Your task to perform on an android device: open app "Spotify" (install if not already installed) Image 0: 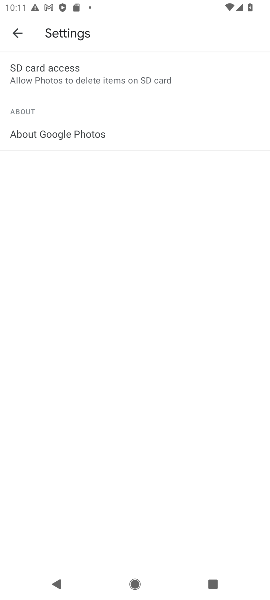
Step 0: press home button
Your task to perform on an android device: open app "Spotify" (install if not already installed) Image 1: 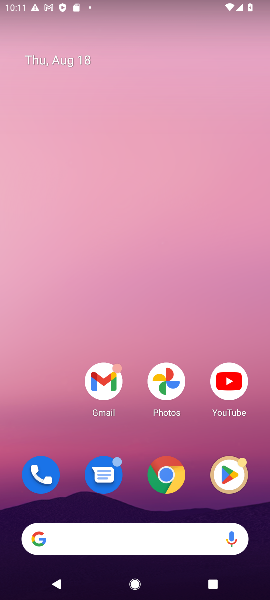
Step 1: click (221, 467)
Your task to perform on an android device: open app "Spotify" (install if not already installed) Image 2: 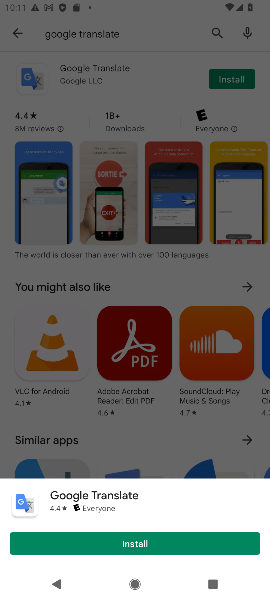
Step 2: click (18, 39)
Your task to perform on an android device: open app "Spotify" (install if not already installed) Image 3: 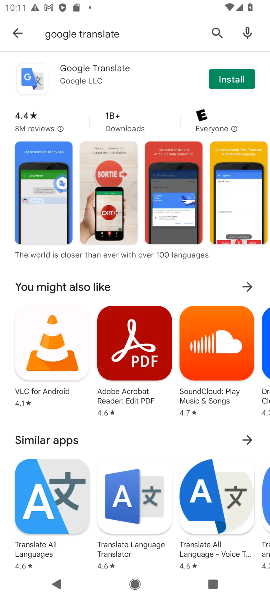
Step 3: click (15, 28)
Your task to perform on an android device: open app "Spotify" (install if not already installed) Image 4: 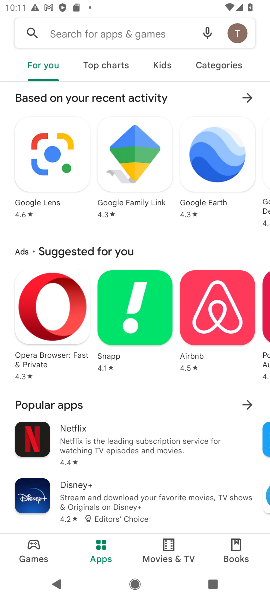
Step 4: click (57, 28)
Your task to perform on an android device: open app "Spotify" (install if not already installed) Image 5: 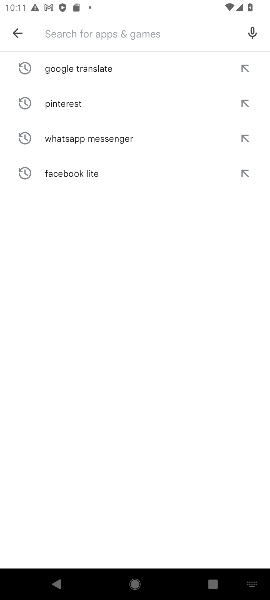
Step 5: type "Spotify"
Your task to perform on an android device: open app "Spotify" (install if not already installed) Image 6: 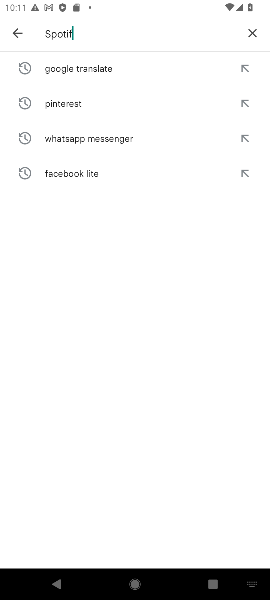
Step 6: type ""
Your task to perform on an android device: open app "Spotify" (install if not already installed) Image 7: 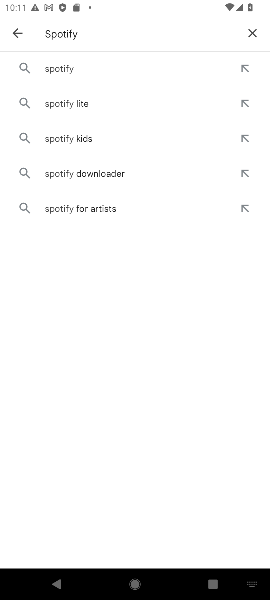
Step 7: click (68, 73)
Your task to perform on an android device: open app "Spotify" (install if not already installed) Image 8: 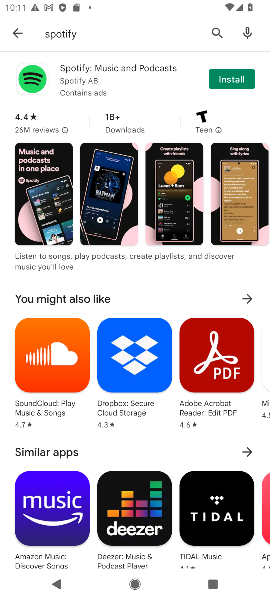
Step 8: click (238, 80)
Your task to perform on an android device: open app "Spotify" (install if not already installed) Image 9: 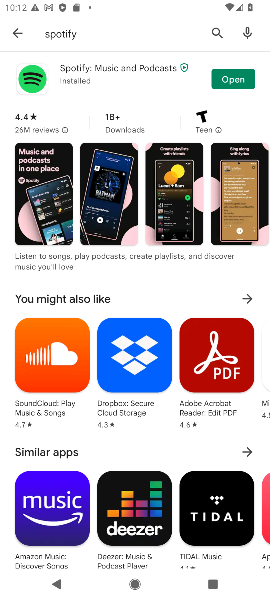
Step 9: click (243, 77)
Your task to perform on an android device: open app "Spotify" (install if not already installed) Image 10: 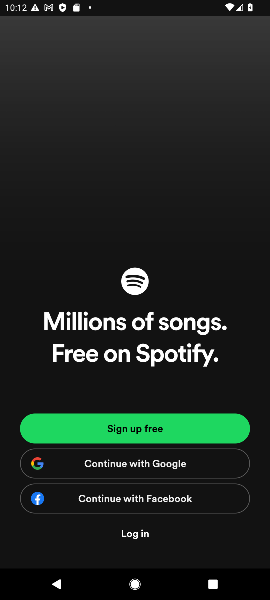
Step 10: task complete